Your task to perform on an android device: Go to notification settings Image 0: 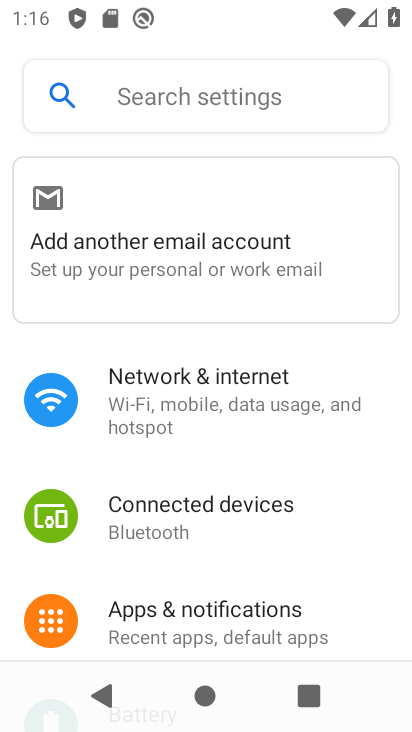
Step 0: click (102, 603)
Your task to perform on an android device: Go to notification settings Image 1: 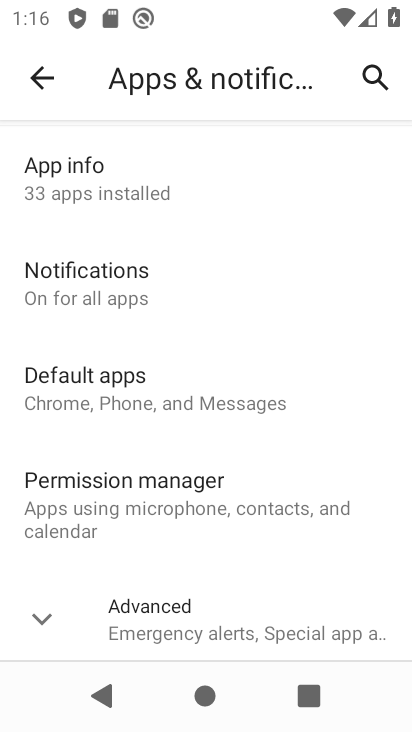
Step 1: click (159, 291)
Your task to perform on an android device: Go to notification settings Image 2: 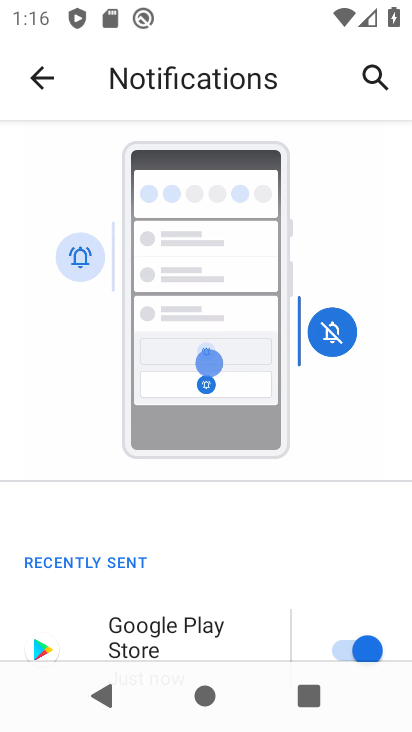
Step 2: drag from (217, 590) to (274, 129)
Your task to perform on an android device: Go to notification settings Image 3: 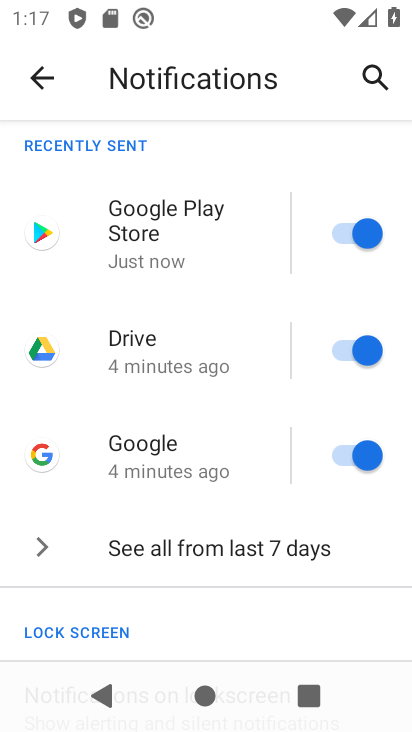
Step 3: drag from (184, 602) to (232, 79)
Your task to perform on an android device: Go to notification settings Image 4: 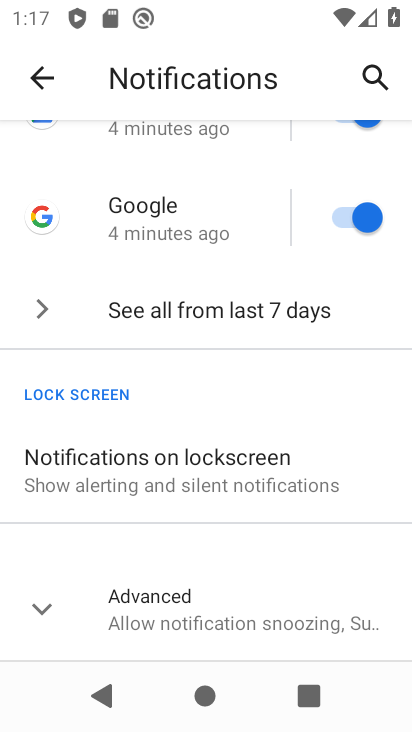
Step 4: click (43, 602)
Your task to perform on an android device: Go to notification settings Image 5: 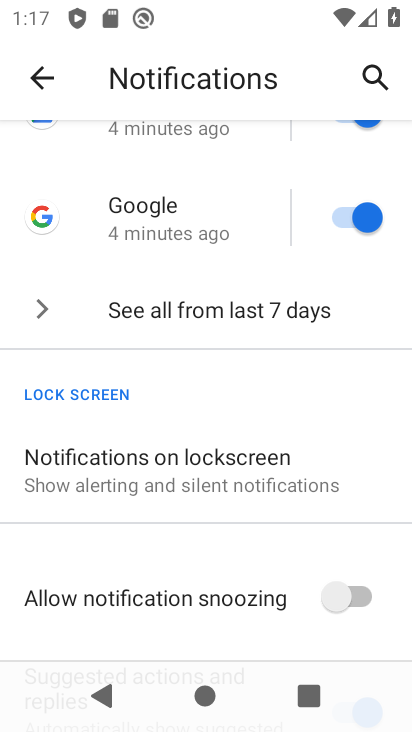
Step 5: task complete